Your task to perform on an android device: Show me popular videos on Youtube Image 0: 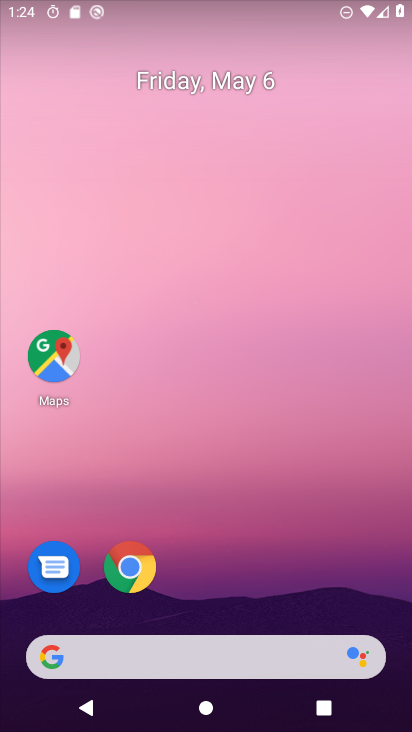
Step 0: drag from (351, 623) to (332, 21)
Your task to perform on an android device: Show me popular videos on Youtube Image 1: 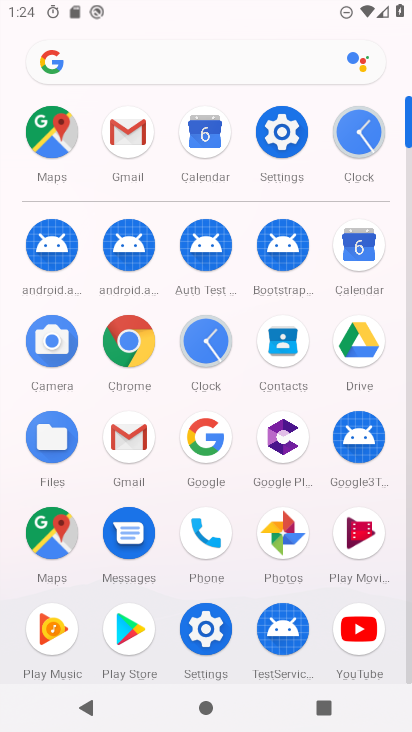
Step 1: click (359, 639)
Your task to perform on an android device: Show me popular videos on Youtube Image 2: 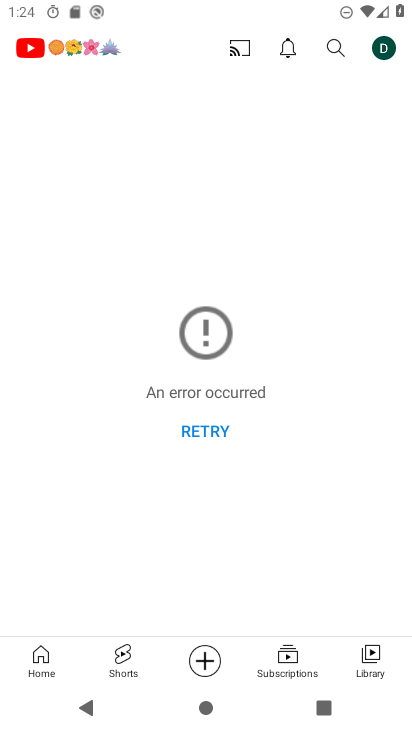
Step 2: task complete